Your task to perform on an android device: Show me recent news Image 0: 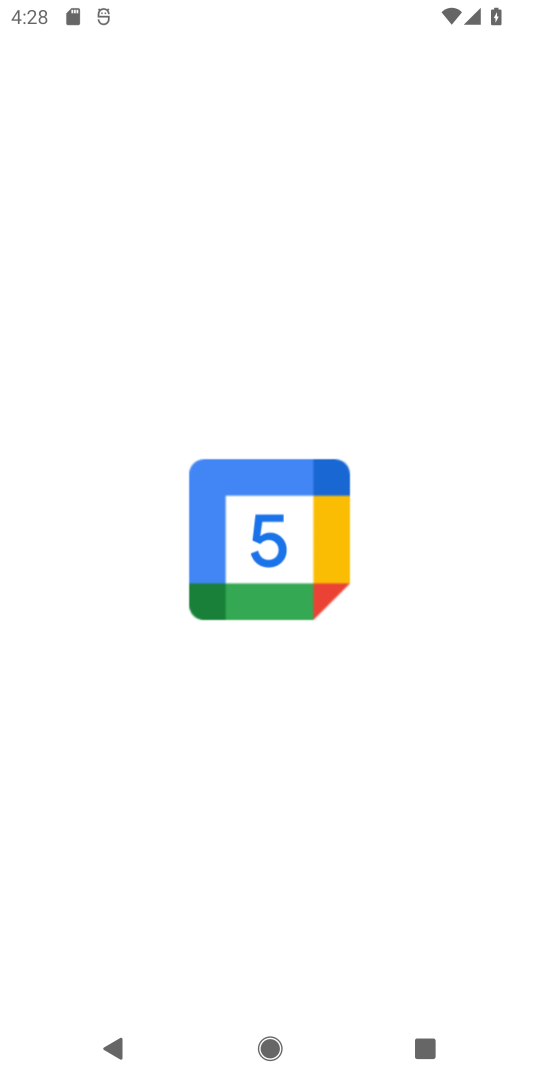
Step 0: press home button
Your task to perform on an android device: Show me recent news Image 1: 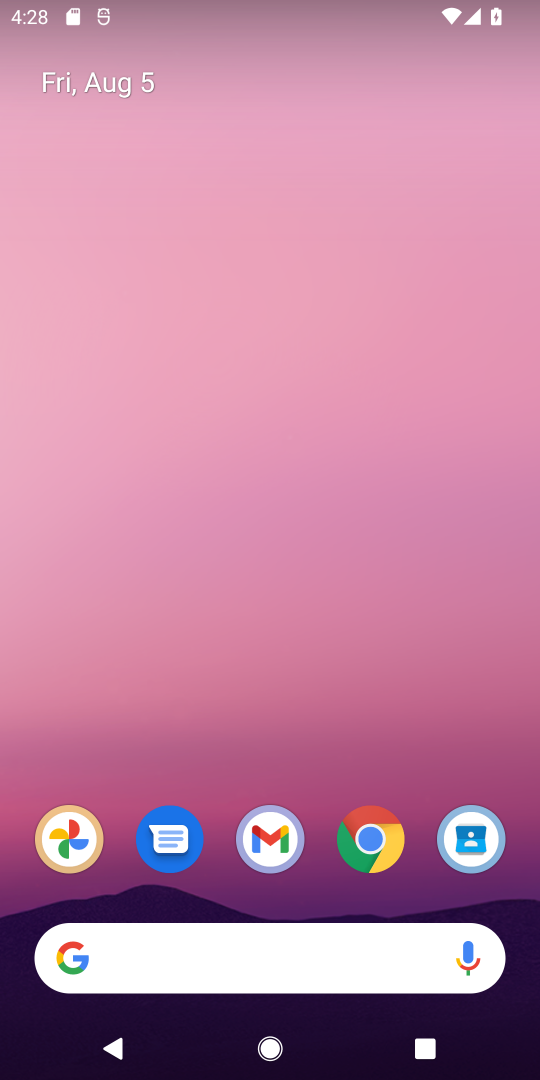
Step 1: drag from (230, 880) to (194, 277)
Your task to perform on an android device: Show me recent news Image 2: 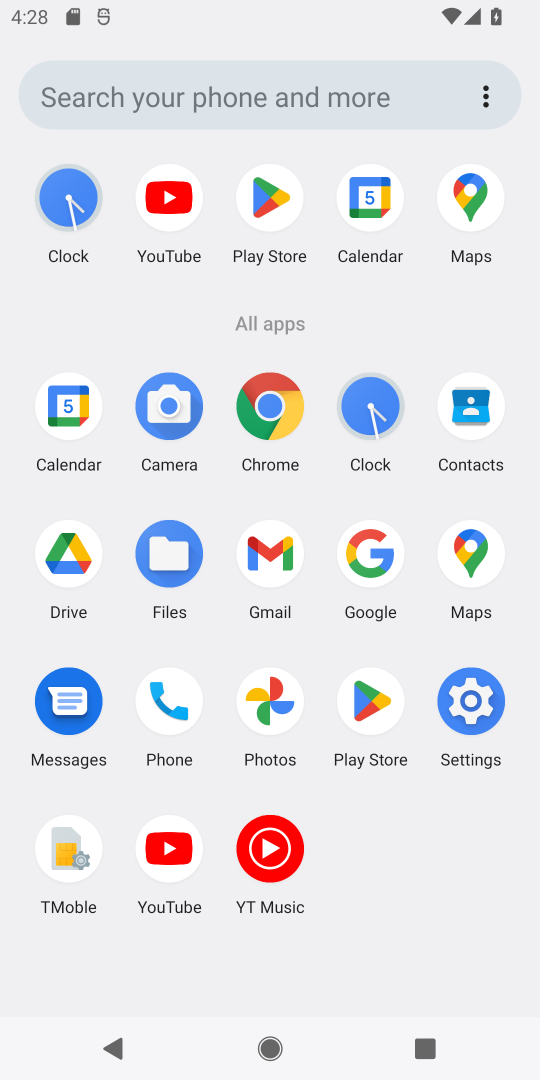
Step 2: click (361, 590)
Your task to perform on an android device: Show me recent news Image 3: 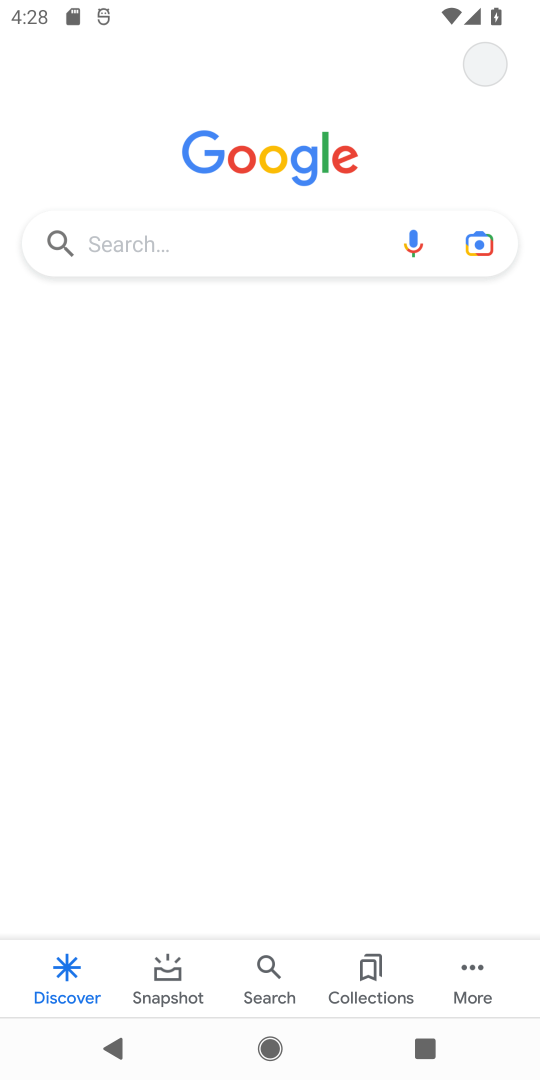
Step 3: click (179, 236)
Your task to perform on an android device: Show me recent news Image 4: 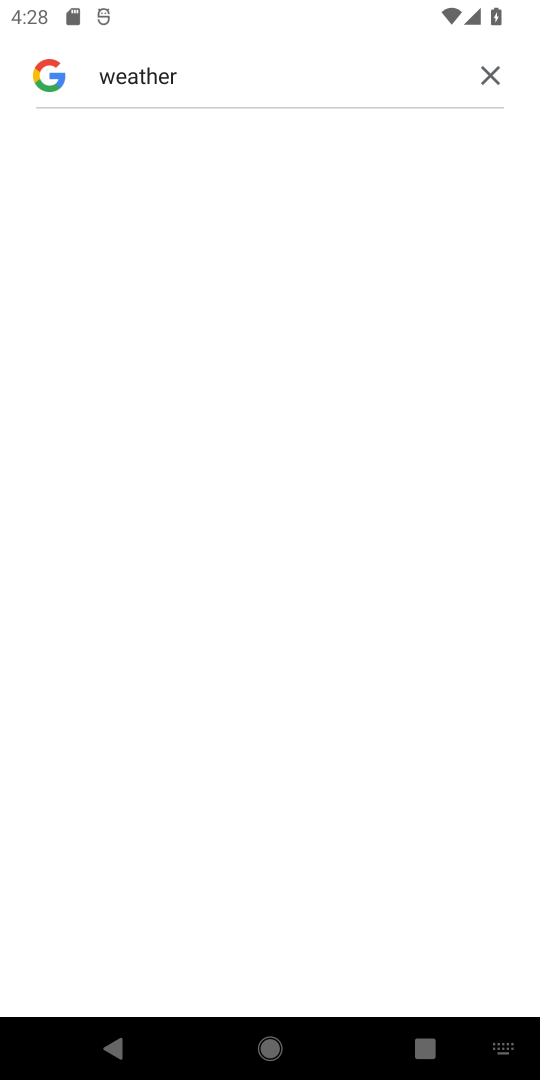
Step 4: click (490, 81)
Your task to perform on an android device: Show me recent news Image 5: 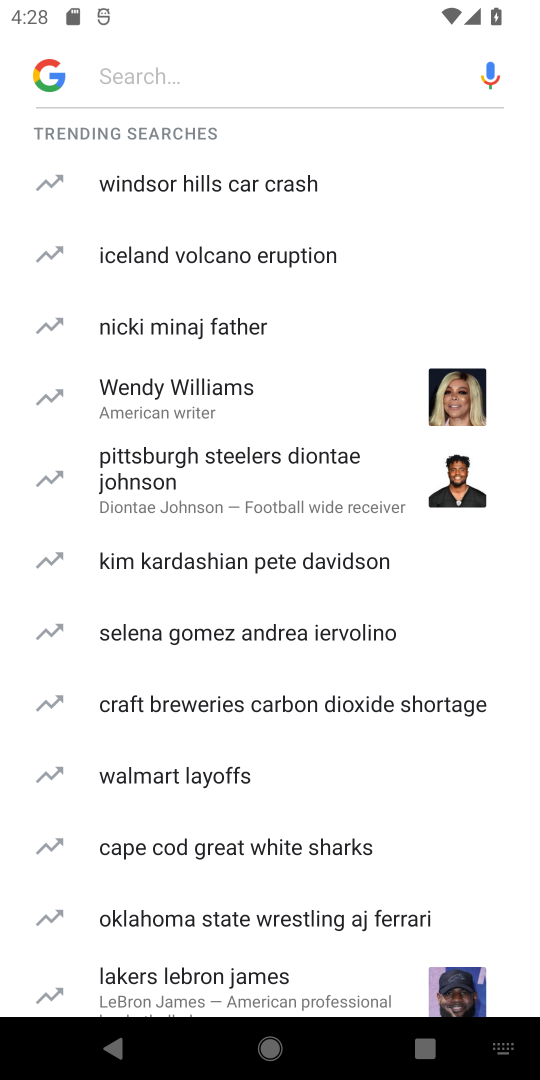
Step 5: type "news"
Your task to perform on an android device: Show me recent news Image 6: 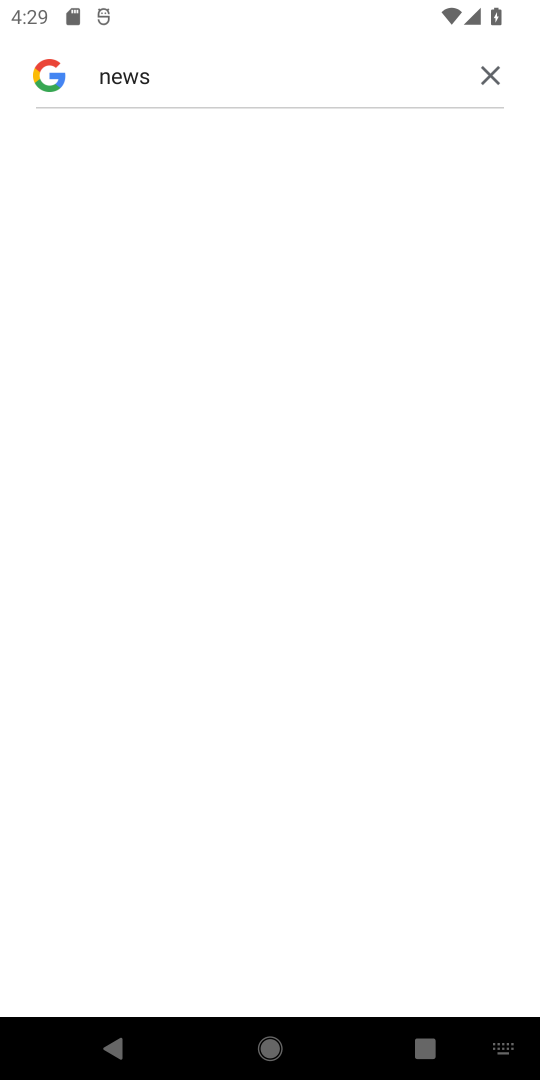
Step 6: task complete